Your task to perform on an android device: What's the weather? Image 0: 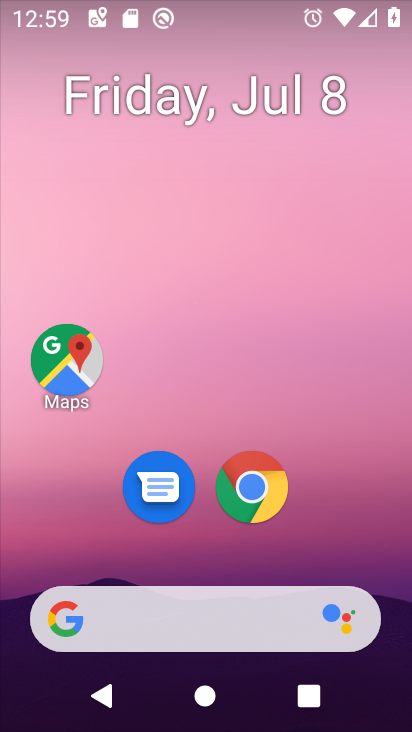
Step 0: click (244, 610)
Your task to perform on an android device: What's the weather? Image 1: 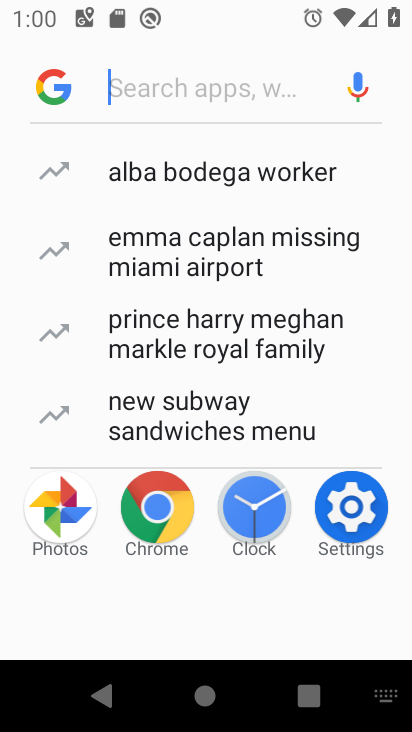
Step 1: type "weather"
Your task to perform on an android device: What's the weather? Image 2: 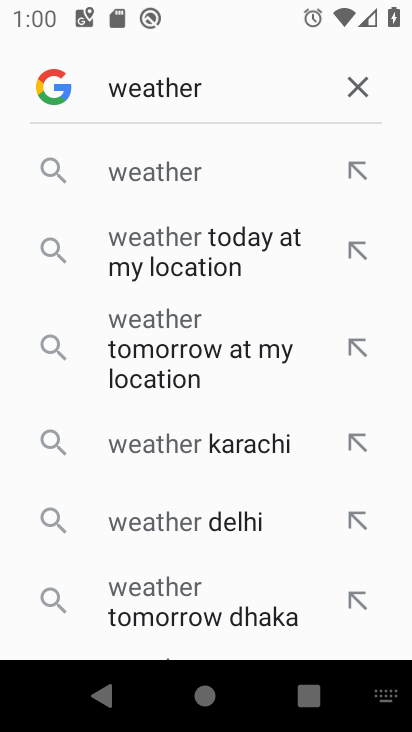
Step 2: click (234, 183)
Your task to perform on an android device: What's the weather? Image 3: 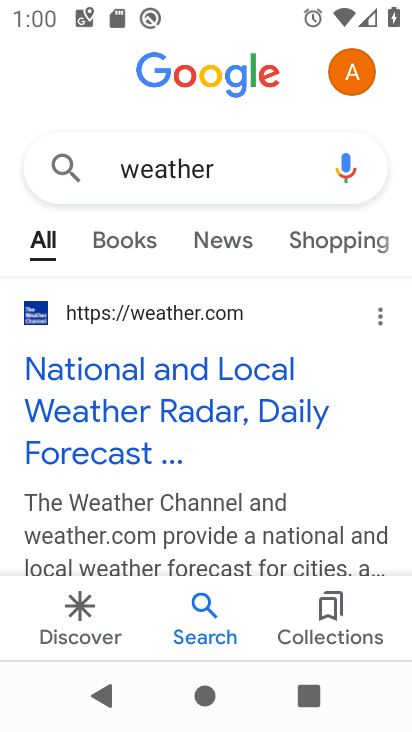
Step 3: drag from (325, 485) to (314, 355)
Your task to perform on an android device: What's the weather? Image 4: 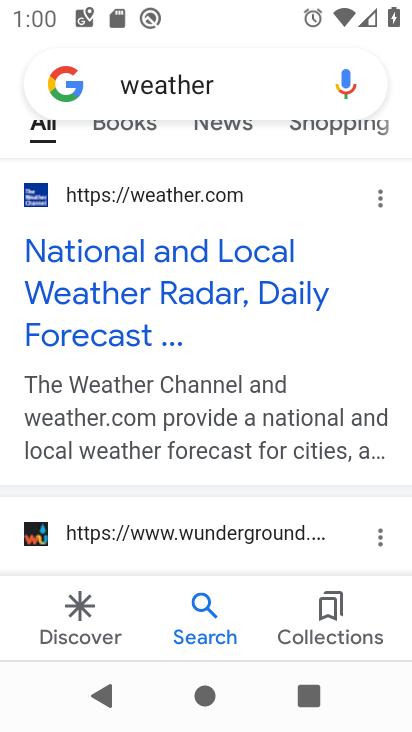
Step 4: drag from (267, 433) to (256, 278)
Your task to perform on an android device: What's the weather? Image 5: 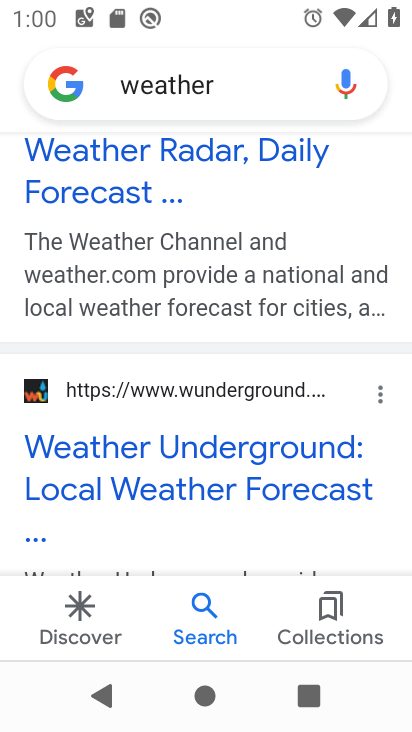
Step 5: drag from (225, 233) to (200, 422)
Your task to perform on an android device: What's the weather? Image 6: 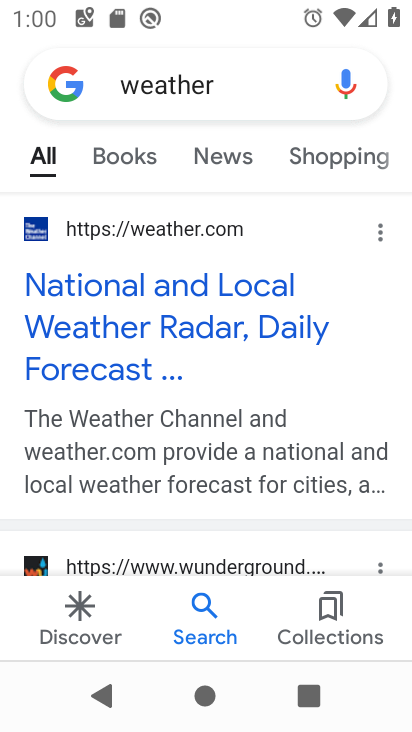
Step 6: click (235, 289)
Your task to perform on an android device: What's the weather? Image 7: 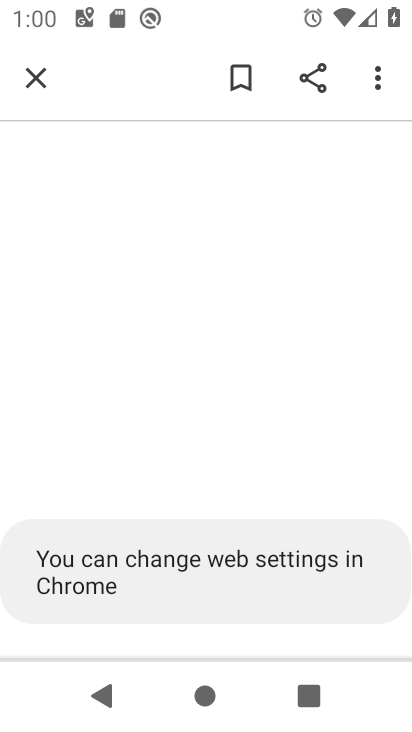
Step 7: task complete